Your task to perform on an android device: turn off priority inbox in the gmail app Image 0: 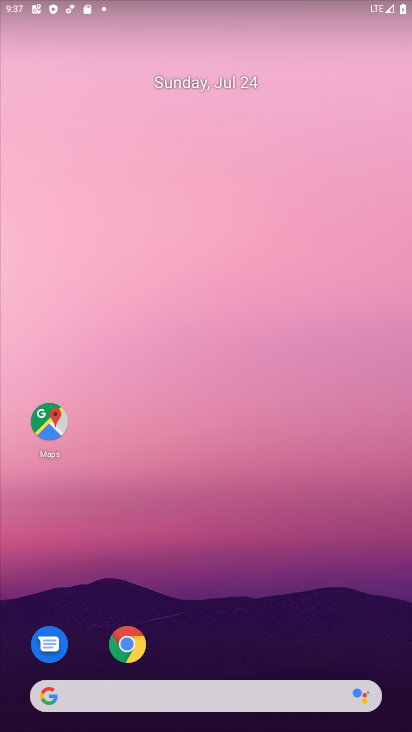
Step 0: drag from (260, 673) to (260, 126)
Your task to perform on an android device: turn off priority inbox in the gmail app Image 1: 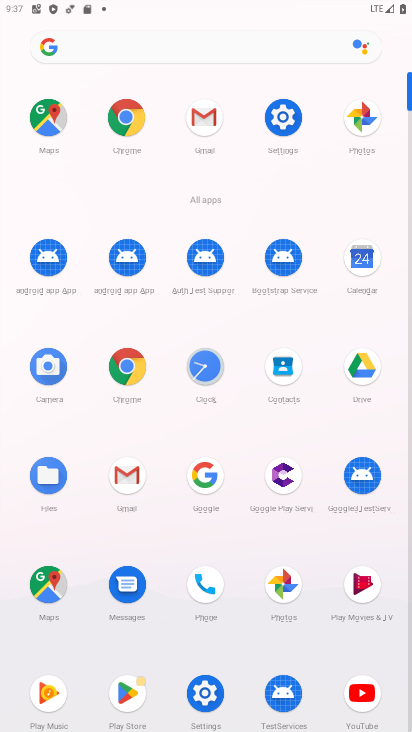
Step 1: click (206, 121)
Your task to perform on an android device: turn off priority inbox in the gmail app Image 2: 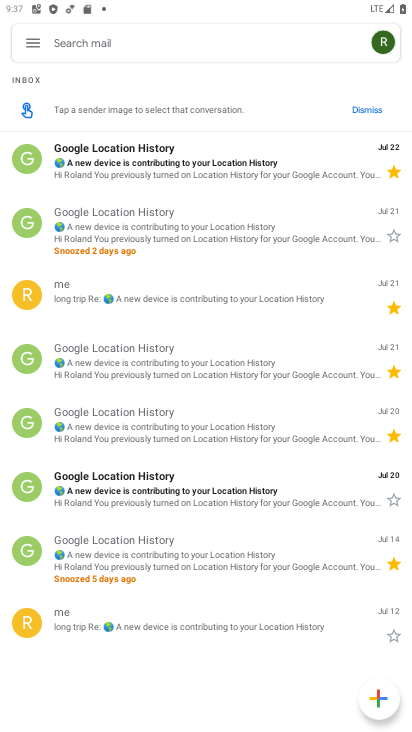
Step 2: click (30, 49)
Your task to perform on an android device: turn off priority inbox in the gmail app Image 3: 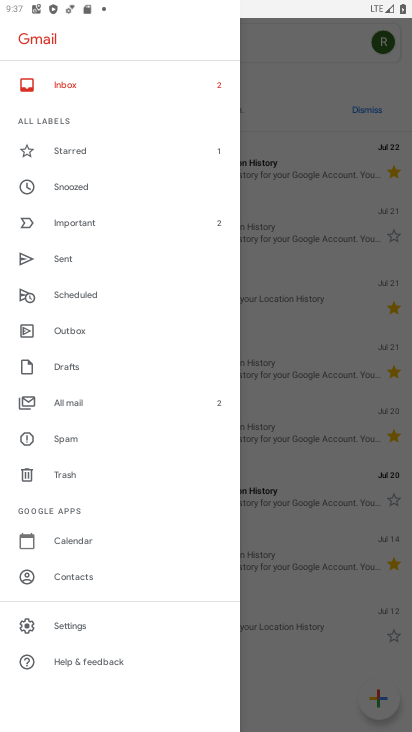
Step 3: click (76, 628)
Your task to perform on an android device: turn off priority inbox in the gmail app Image 4: 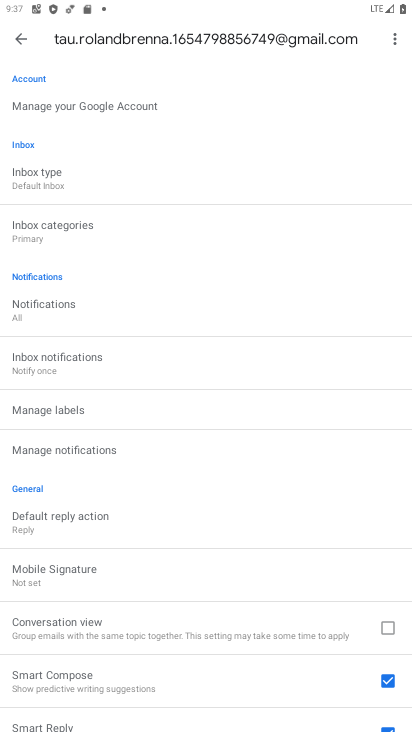
Step 4: click (34, 178)
Your task to perform on an android device: turn off priority inbox in the gmail app Image 5: 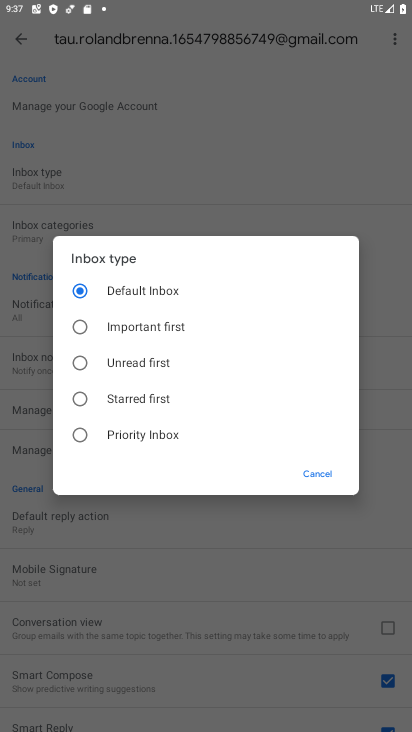
Step 5: click (130, 435)
Your task to perform on an android device: turn off priority inbox in the gmail app Image 6: 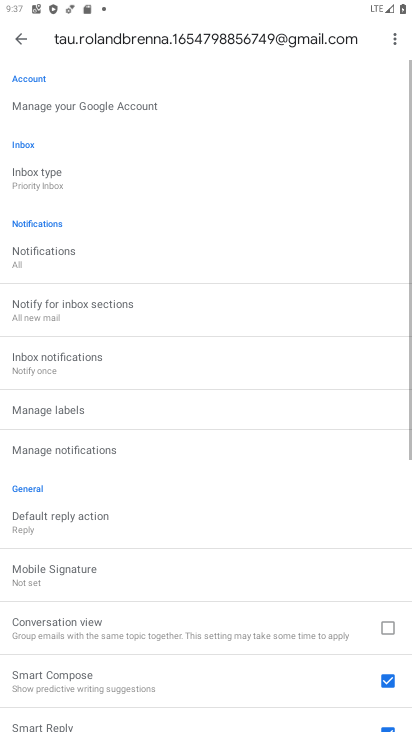
Step 6: click (42, 193)
Your task to perform on an android device: turn off priority inbox in the gmail app Image 7: 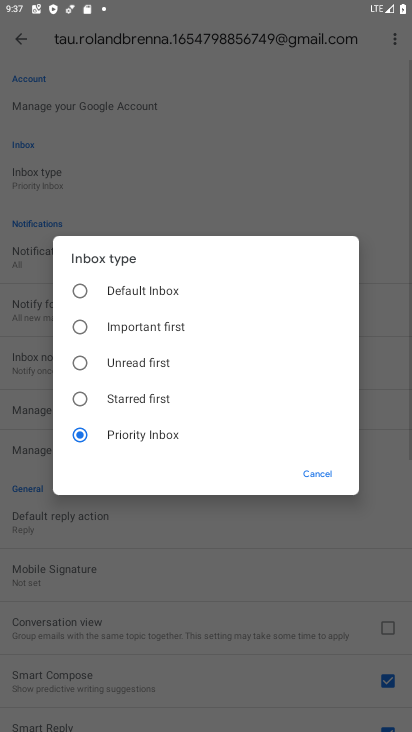
Step 7: click (111, 355)
Your task to perform on an android device: turn off priority inbox in the gmail app Image 8: 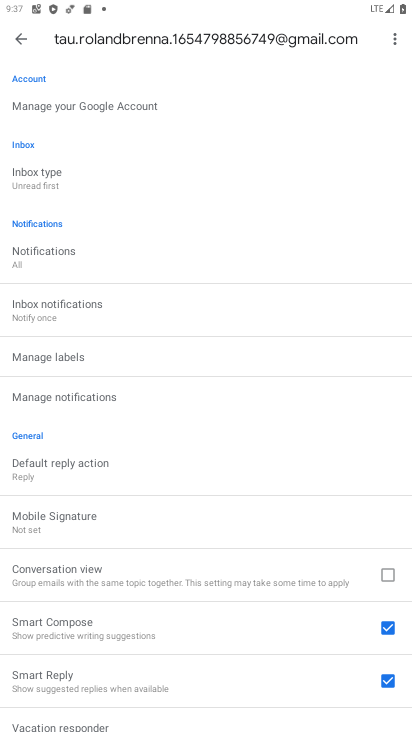
Step 8: task complete